Your task to perform on an android device: Open calendar and show me the fourth week of next month Image 0: 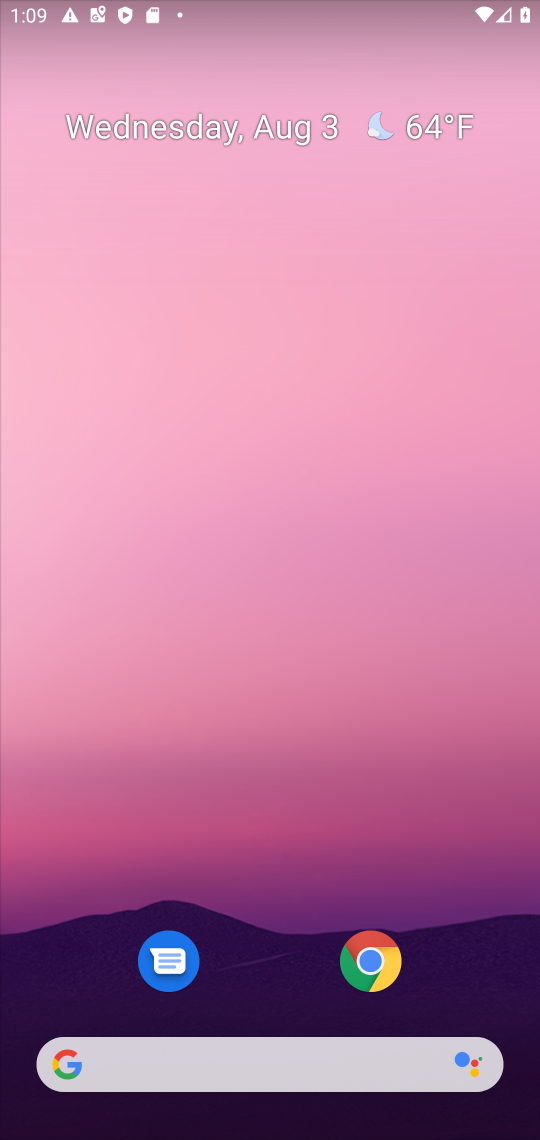
Step 0: drag from (267, 997) to (296, 88)
Your task to perform on an android device: Open calendar and show me the fourth week of next month Image 1: 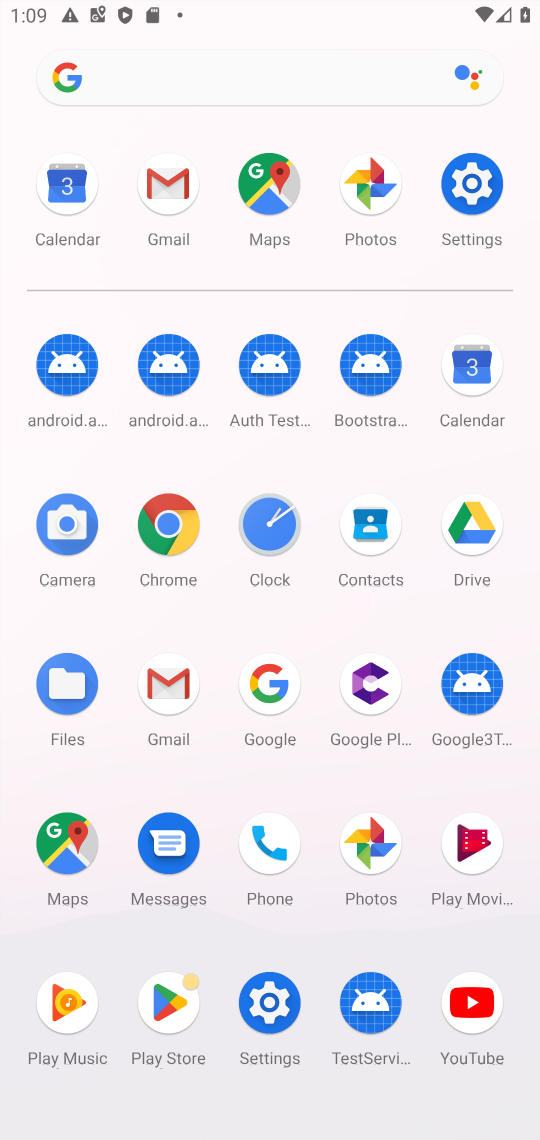
Step 1: click (463, 371)
Your task to perform on an android device: Open calendar and show me the fourth week of next month Image 2: 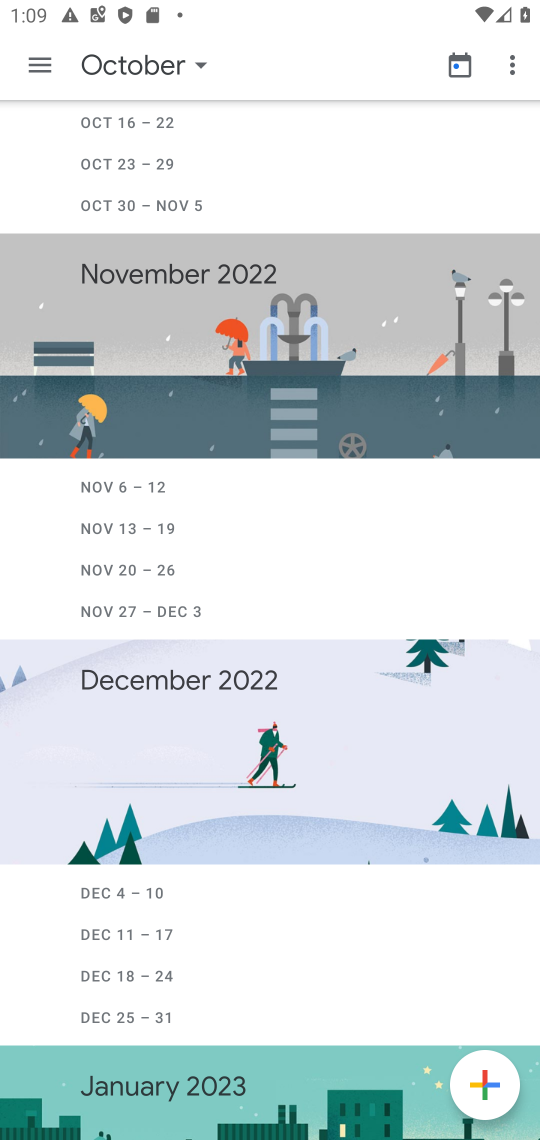
Step 2: click (455, 70)
Your task to perform on an android device: Open calendar and show me the fourth week of next month Image 3: 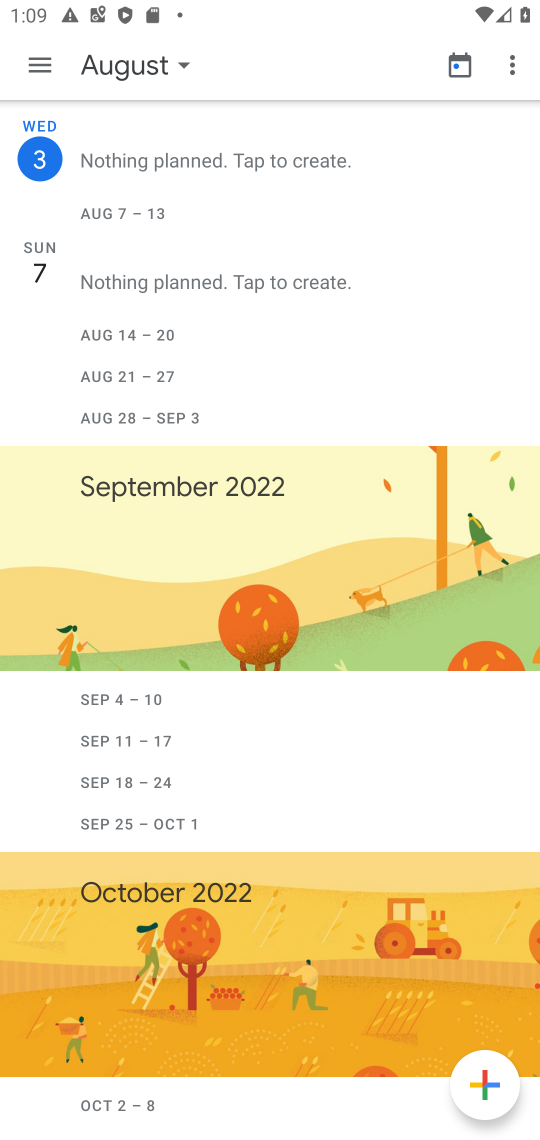
Step 3: click (177, 73)
Your task to perform on an android device: Open calendar and show me the fourth week of next month Image 4: 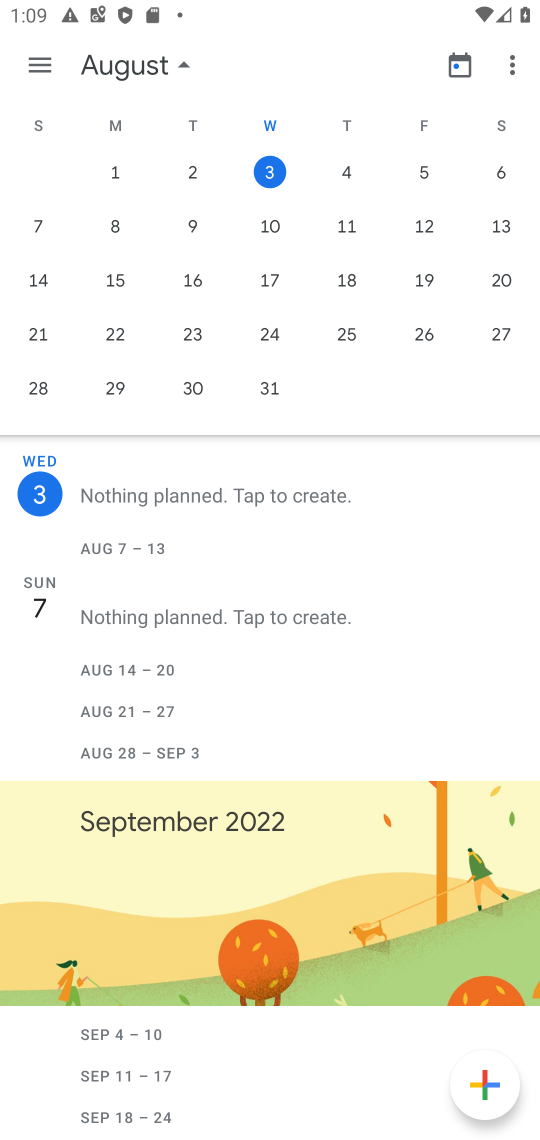
Step 4: drag from (453, 308) to (5, 122)
Your task to perform on an android device: Open calendar and show me the fourth week of next month Image 5: 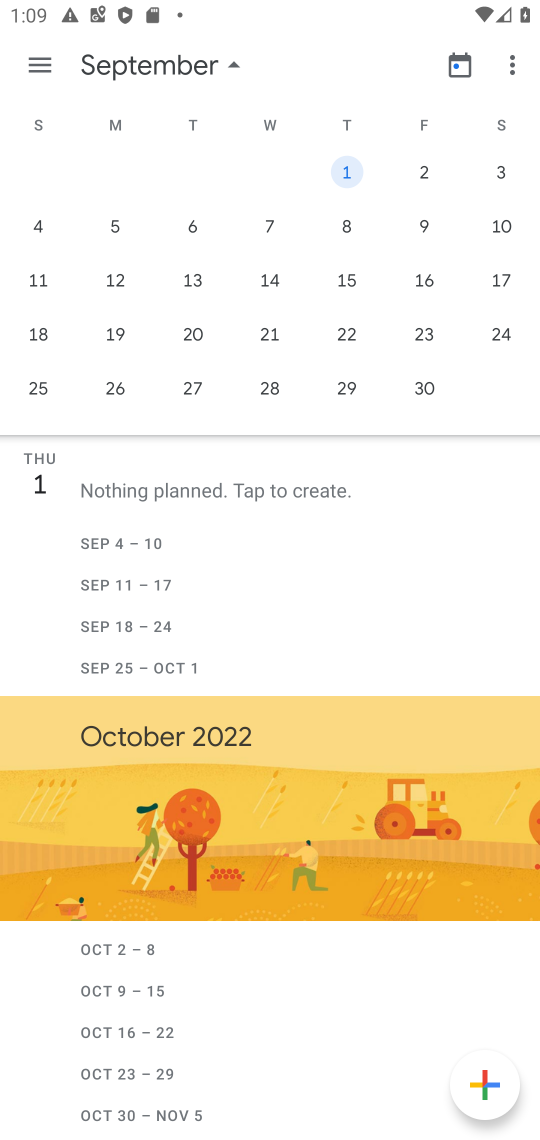
Step 5: click (41, 65)
Your task to perform on an android device: Open calendar and show me the fourth week of next month Image 6: 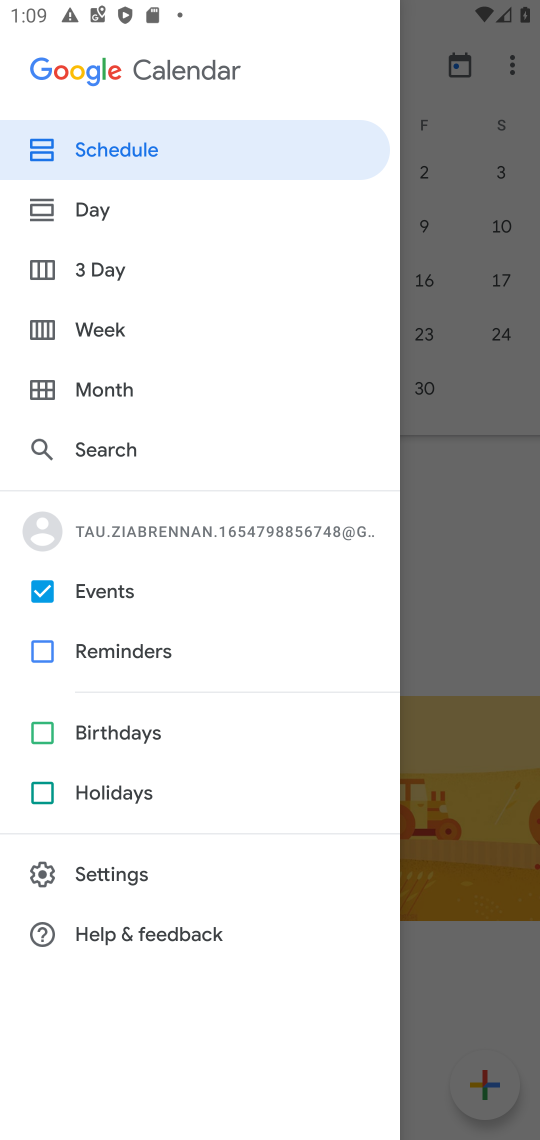
Step 6: click (84, 330)
Your task to perform on an android device: Open calendar and show me the fourth week of next month Image 7: 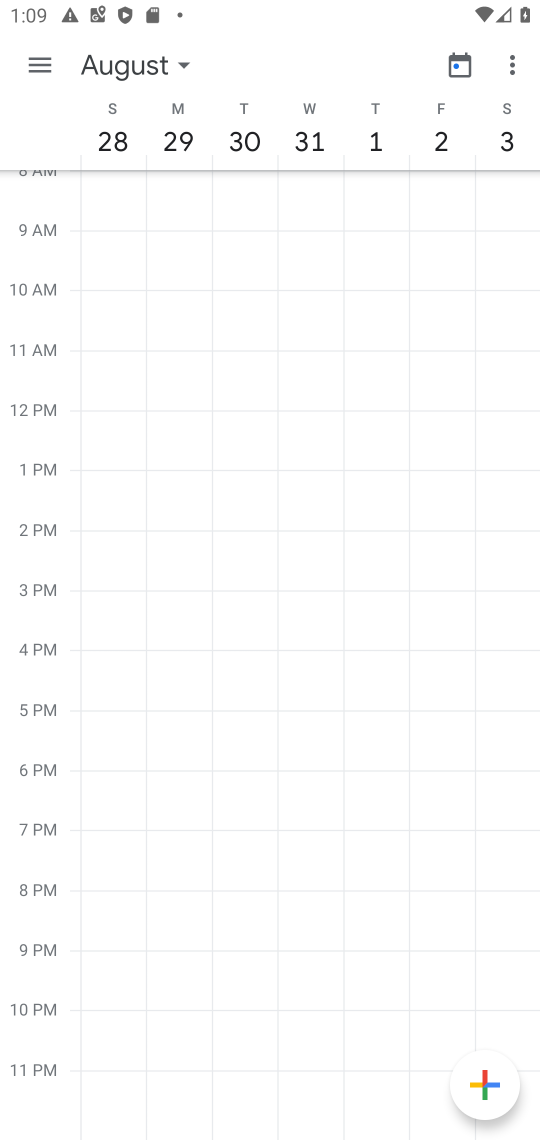
Step 7: task complete